Your task to perform on an android device: turn on priority inbox in the gmail app Image 0: 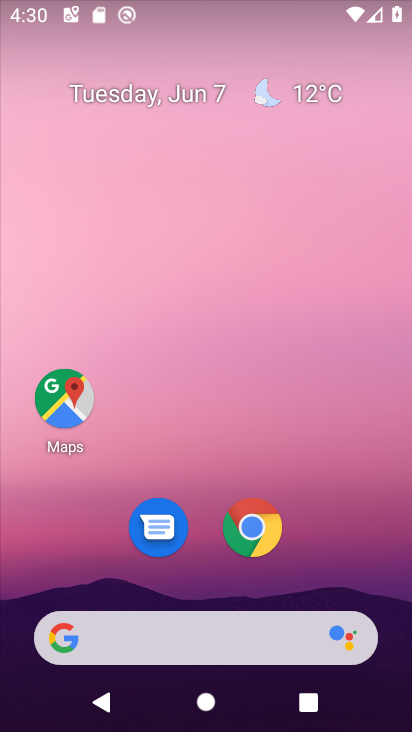
Step 0: drag from (257, 589) to (372, 215)
Your task to perform on an android device: turn on priority inbox in the gmail app Image 1: 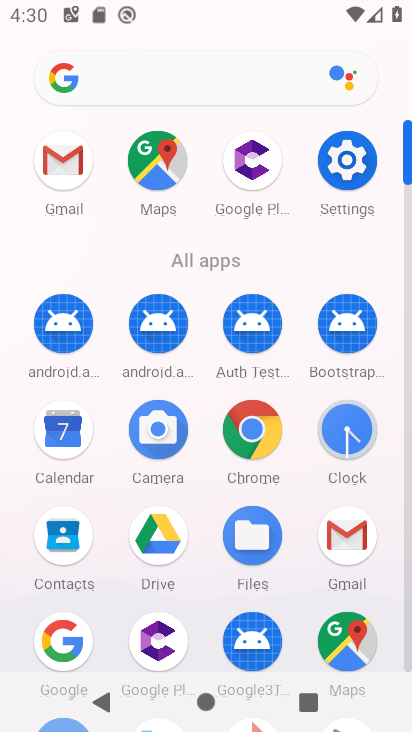
Step 1: click (365, 184)
Your task to perform on an android device: turn on priority inbox in the gmail app Image 2: 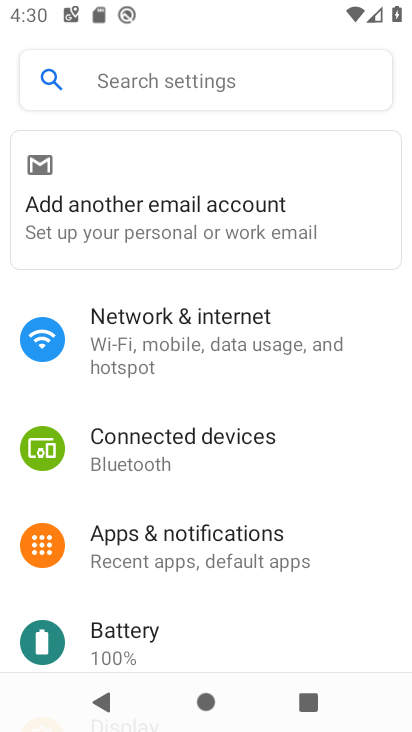
Step 2: drag from (148, 576) to (188, 374)
Your task to perform on an android device: turn on priority inbox in the gmail app Image 3: 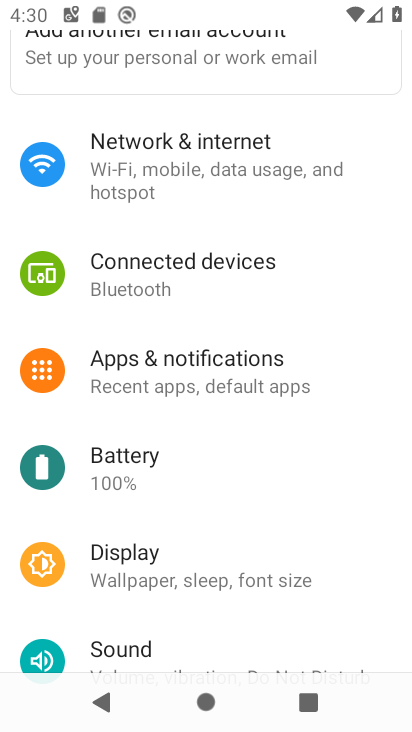
Step 3: press home button
Your task to perform on an android device: turn on priority inbox in the gmail app Image 4: 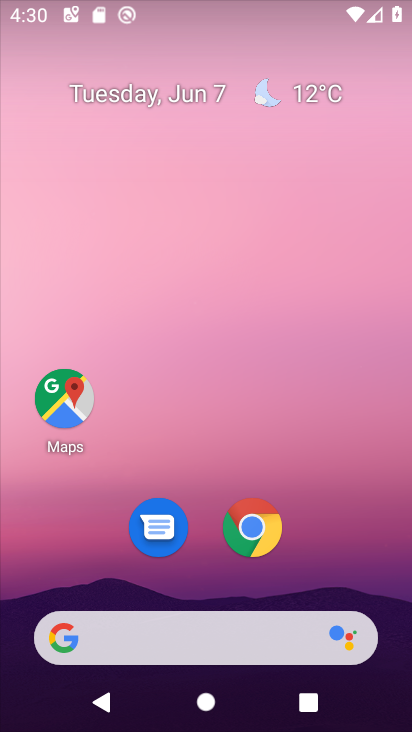
Step 4: drag from (173, 567) to (222, 195)
Your task to perform on an android device: turn on priority inbox in the gmail app Image 5: 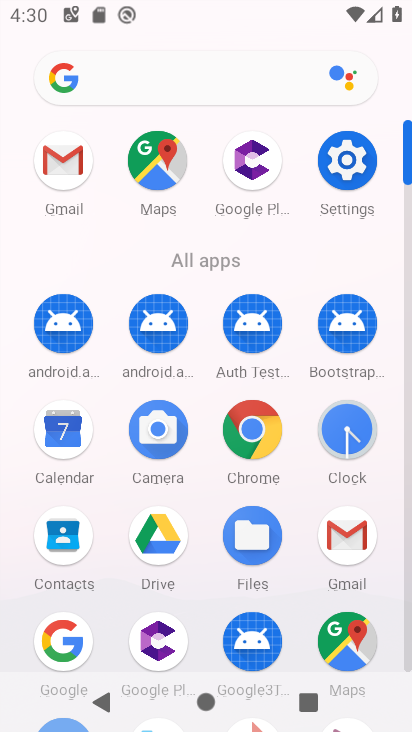
Step 5: click (343, 540)
Your task to perform on an android device: turn on priority inbox in the gmail app Image 6: 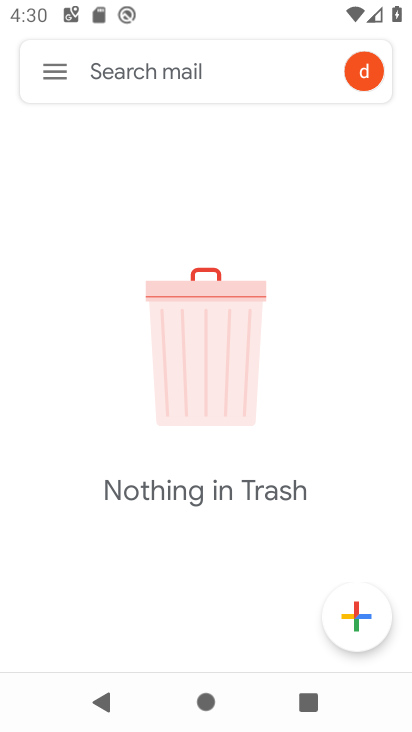
Step 6: click (60, 88)
Your task to perform on an android device: turn on priority inbox in the gmail app Image 7: 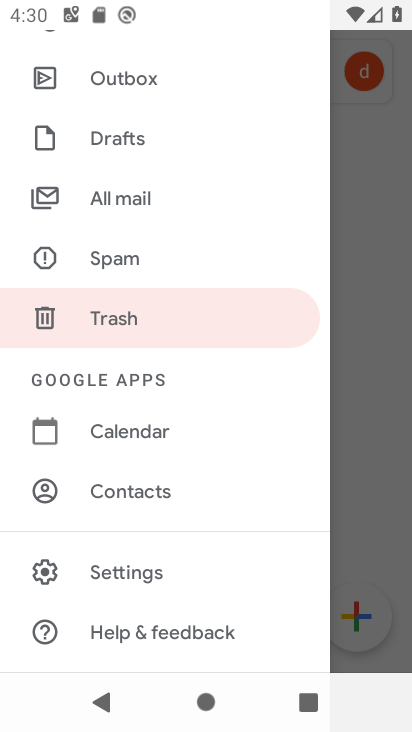
Step 7: click (122, 581)
Your task to perform on an android device: turn on priority inbox in the gmail app Image 8: 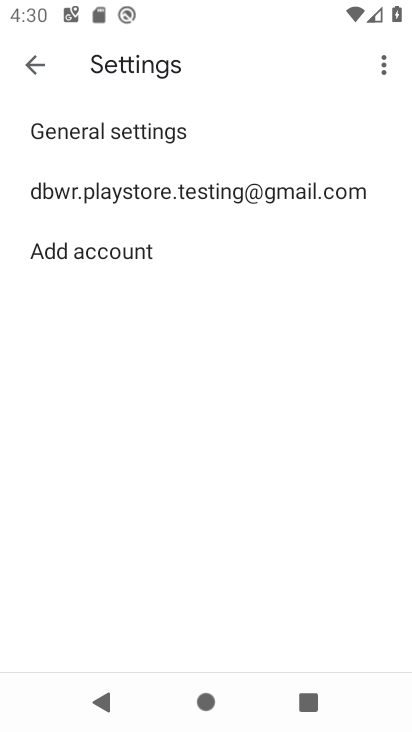
Step 8: click (98, 182)
Your task to perform on an android device: turn on priority inbox in the gmail app Image 9: 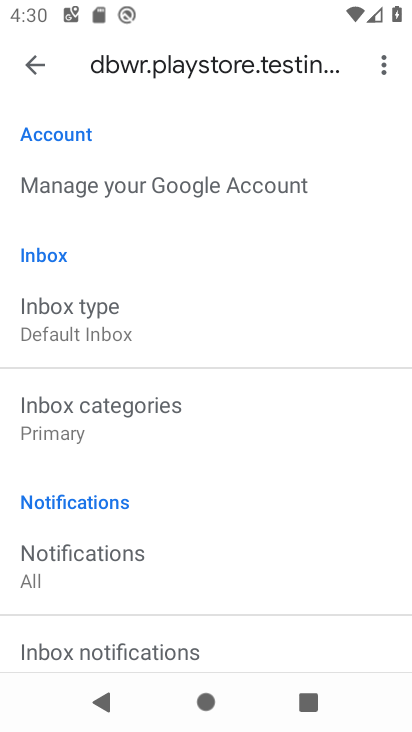
Step 9: click (83, 321)
Your task to perform on an android device: turn on priority inbox in the gmail app Image 10: 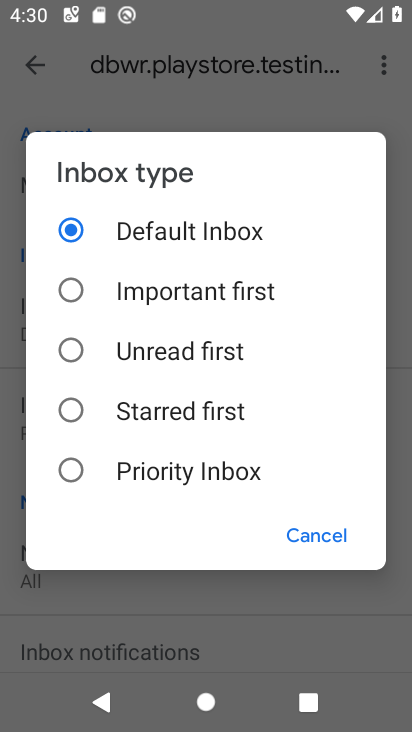
Step 10: click (76, 471)
Your task to perform on an android device: turn on priority inbox in the gmail app Image 11: 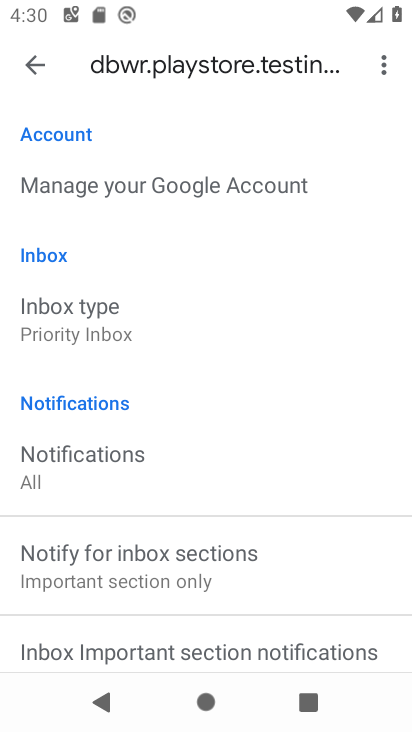
Step 11: task complete